Your task to perform on an android device: set an alarm Image 0: 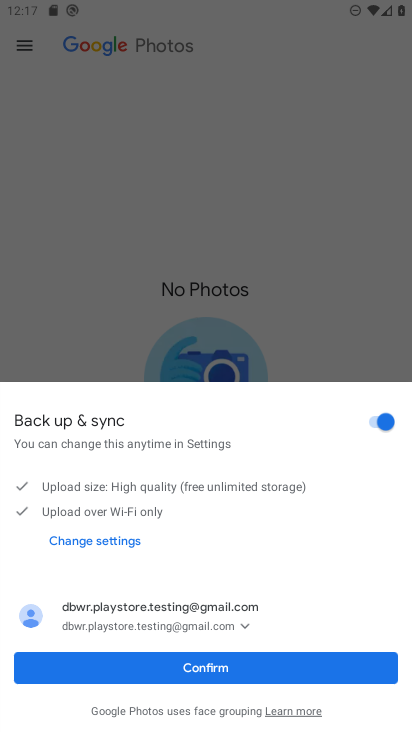
Step 0: press home button
Your task to perform on an android device: set an alarm Image 1: 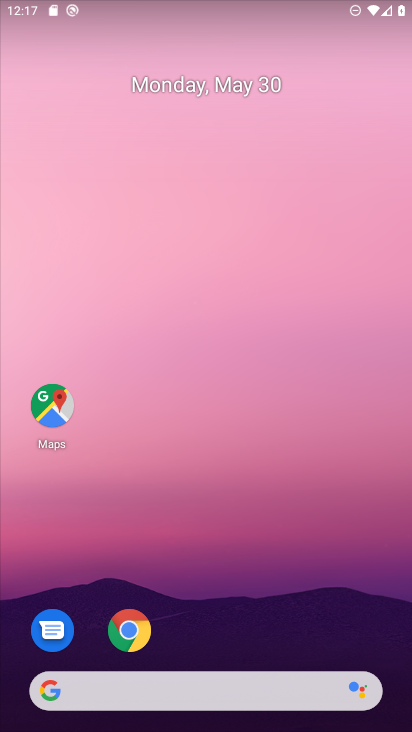
Step 1: drag from (217, 468) to (367, 33)
Your task to perform on an android device: set an alarm Image 2: 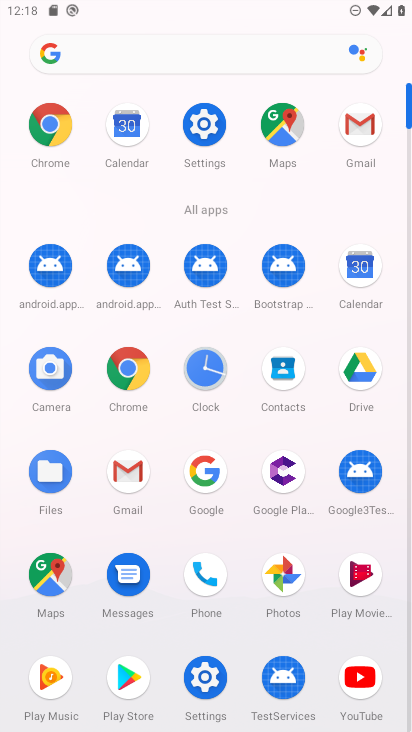
Step 2: click (200, 362)
Your task to perform on an android device: set an alarm Image 3: 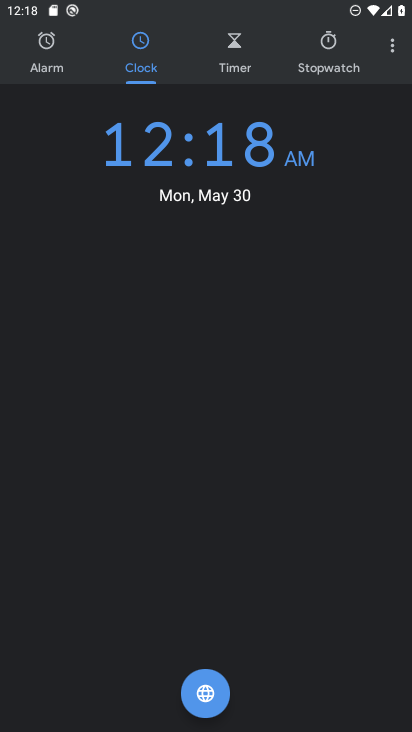
Step 3: click (61, 68)
Your task to perform on an android device: set an alarm Image 4: 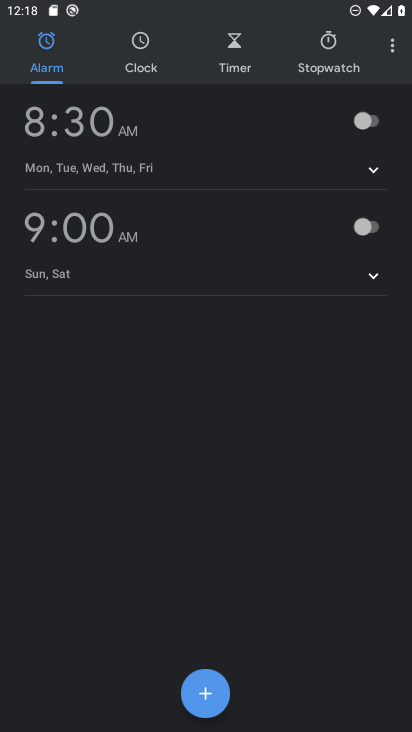
Step 4: click (373, 121)
Your task to perform on an android device: set an alarm Image 5: 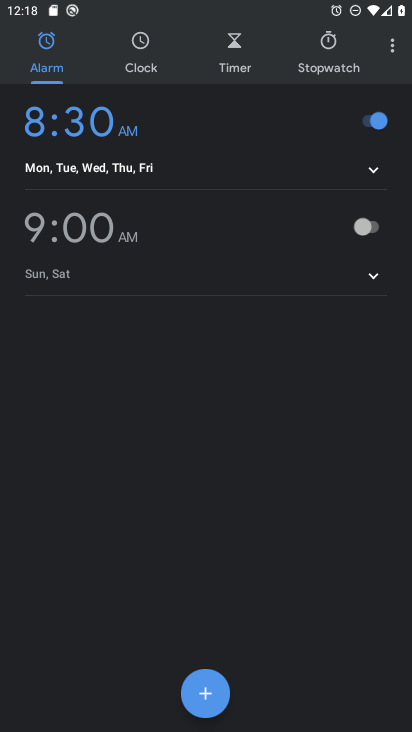
Step 5: task complete